Your task to perform on an android device: Go to calendar. Show me events next week Image 0: 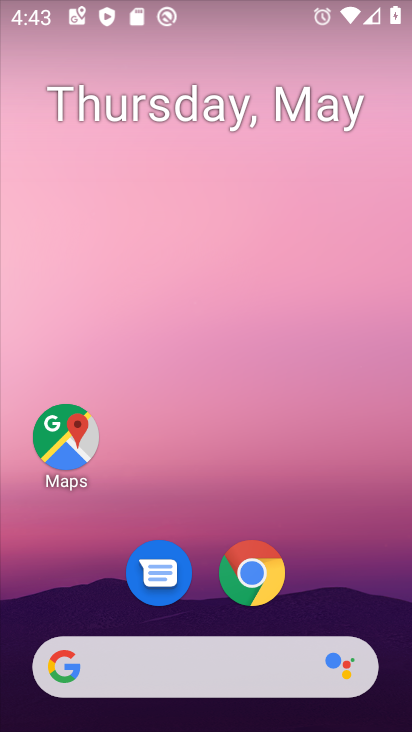
Step 0: drag from (235, 144) to (227, 85)
Your task to perform on an android device: Go to calendar. Show me events next week Image 1: 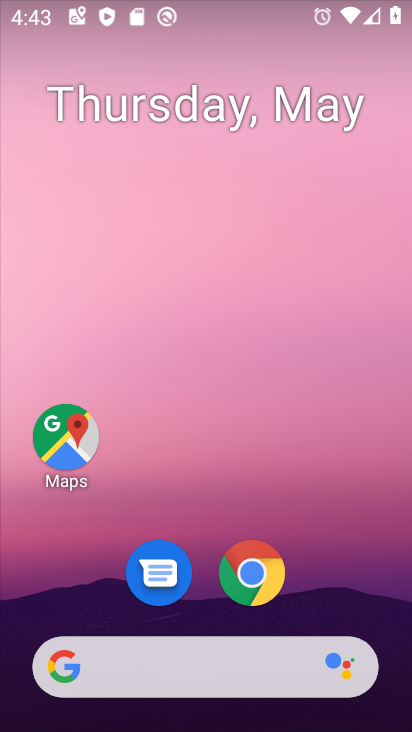
Step 1: drag from (306, 606) to (254, 21)
Your task to perform on an android device: Go to calendar. Show me events next week Image 2: 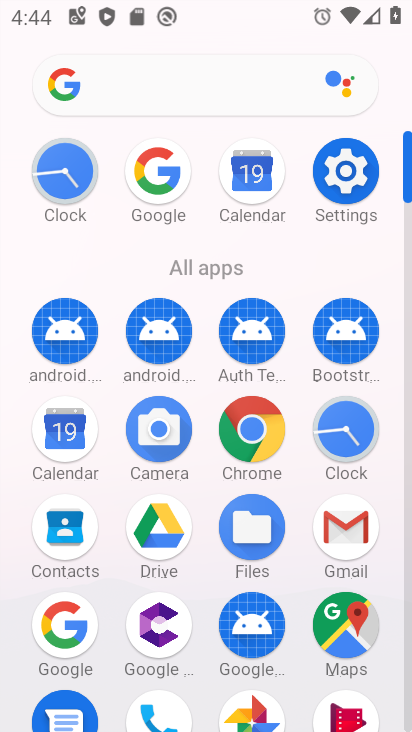
Step 2: click (256, 201)
Your task to perform on an android device: Go to calendar. Show me events next week Image 3: 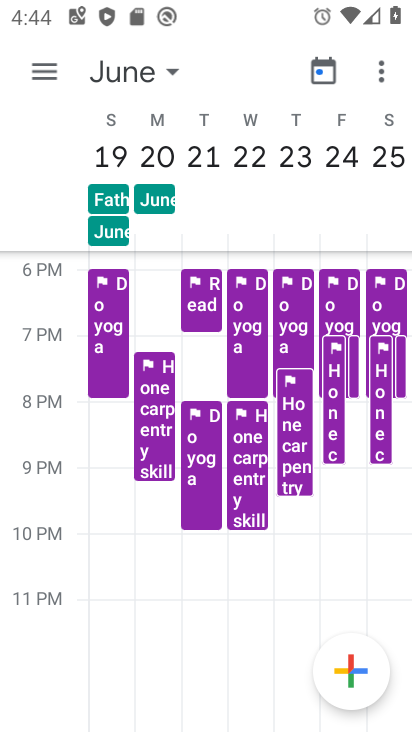
Step 3: click (135, 74)
Your task to perform on an android device: Go to calendar. Show me events next week Image 4: 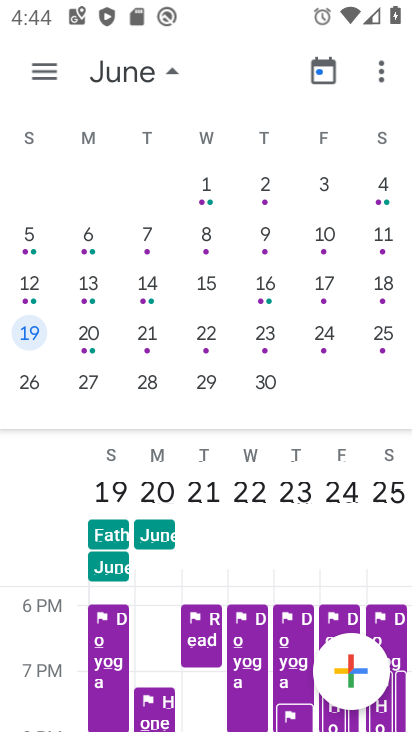
Step 4: drag from (262, 283) to (365, 288)
Your task to perform on an android device: Go to calendar. Show me events next week Image 5: 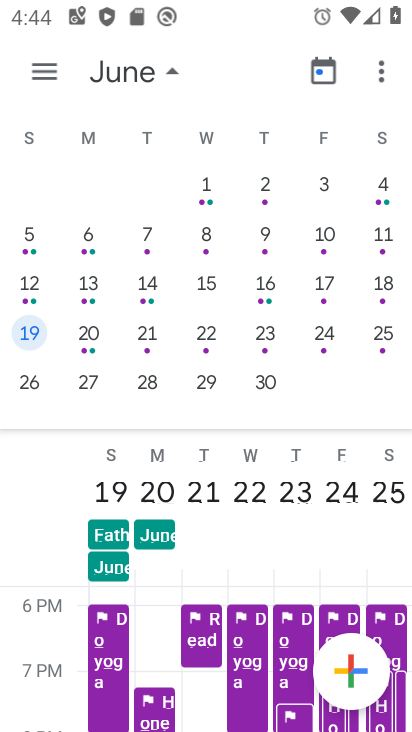
Step 5: drag from (300, 286) to (388, 286)
Your task to perform on an android device: Go to calendar. Show me events next week Image 6: 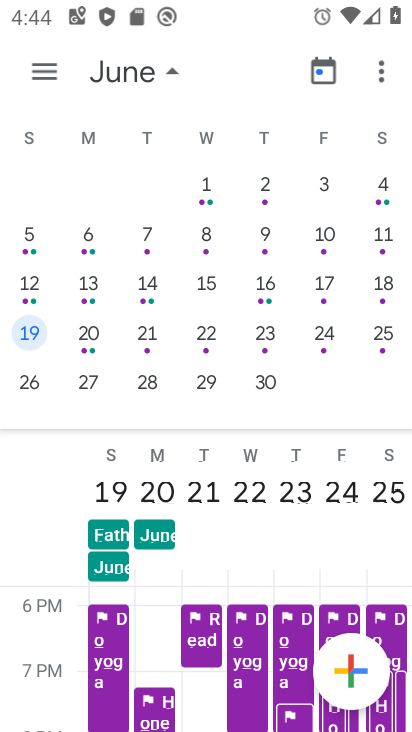
Step 6: click (401, 278)
Your task to perform on an android device: Go to calendar. Show me events next week Image 7: 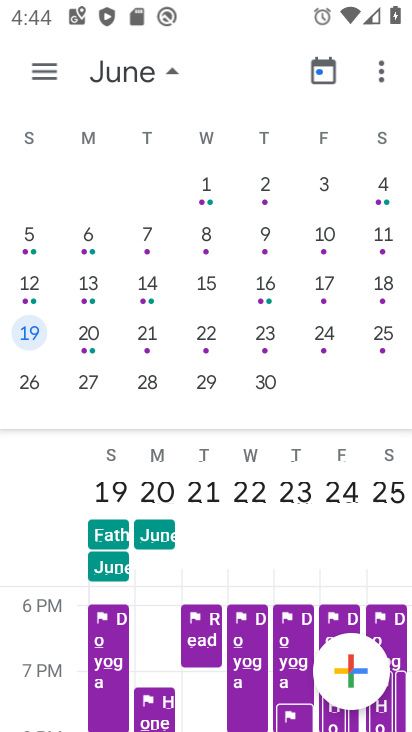
Step 7: drag from (309, 300) to (409, 295)
Your task to perform on an android device: Go to calendar. Show me events next week Image 8: 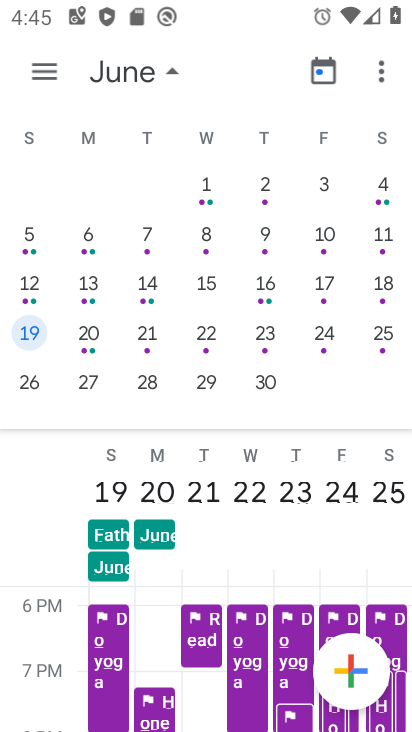
Step 8: drag from (80, 244) to (350, 296)
Your task to perform on an android device: Go to calendar. Show me events next week Image 9: 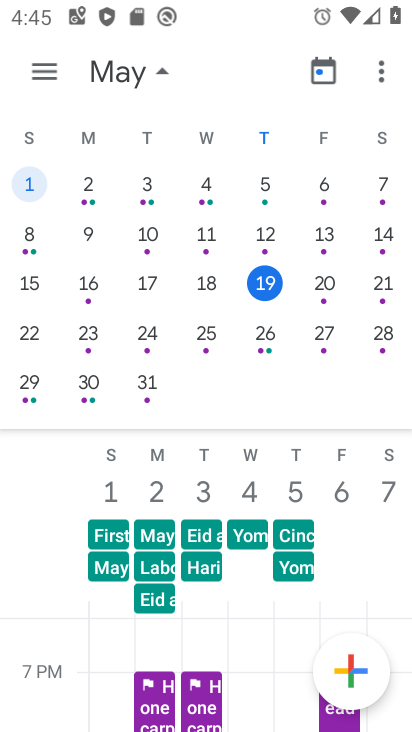
Step 9: click (33, 340)
Your task to perform on an android device: Go to calendar. Show me events next week Image 10: 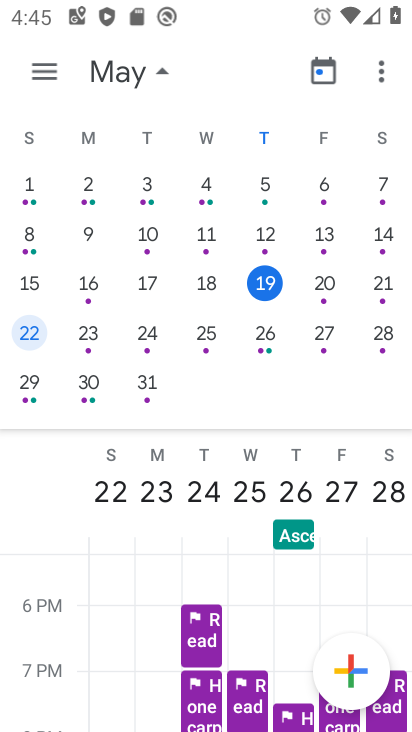
Step 10: drag from (177, 360) to (219, 175)
Your task to perform on an android device: Go to calendar. Show me events next week Image 11: 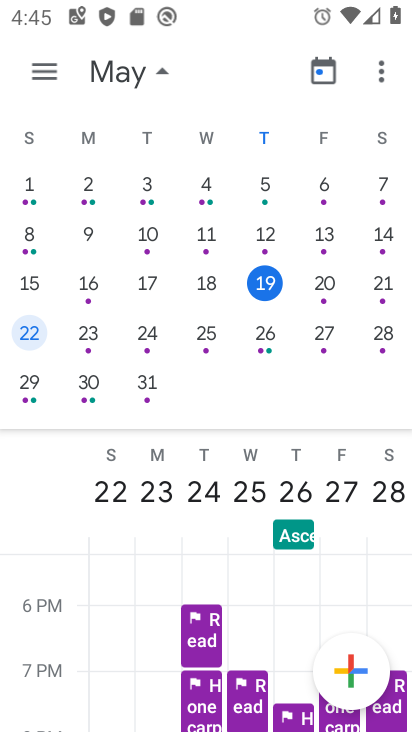
Step 11: drag from (311, 246) to (327, 170)
Your task to perform on an android device: Go to calendar. Show me events next week Image 12: 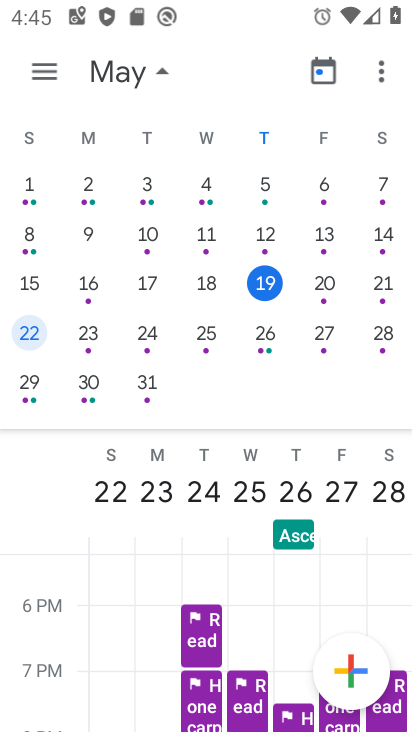
Step 12: drag from (229, 288) to (240, 67)
Your task to perform on an android device: Go to calendar. Show me events next week Image 13: 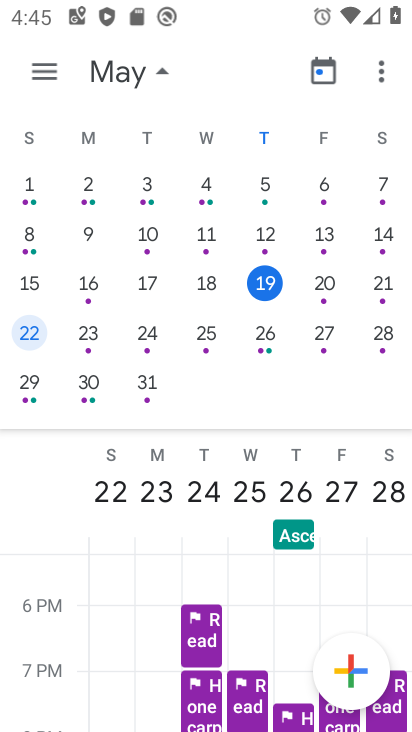
Step 13: click (249, 131)
Your task to perform on an android device: Go to calendar. Show me events next week Image 14: 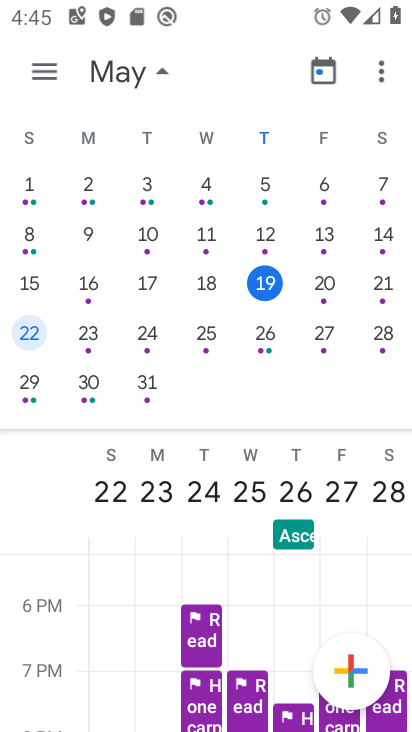
Step 14: drag from (153, 580) to (199, 195)
Your task to perform on an android device: Go to calendar. Show me events next week Image 15: 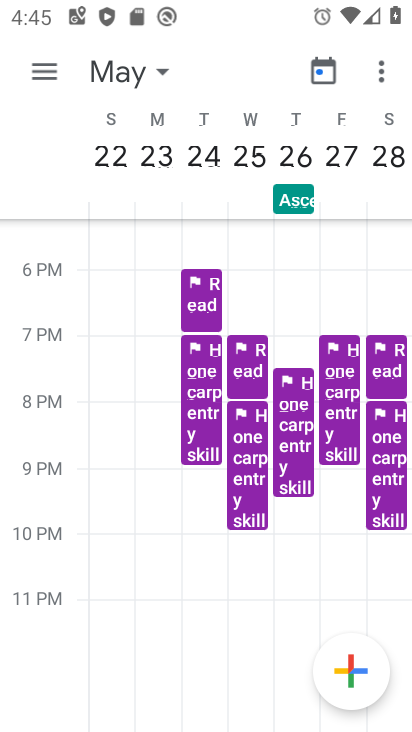
Step 15: click (260, 281)
Your task to perform on an android device: Go to calendar. Show me events next week Image 16: 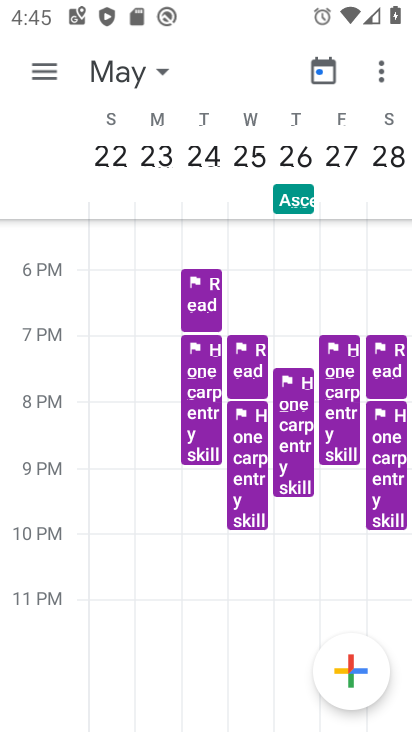
Step 16: click (304, 624)
Your task to perform on an android device: Go to calendar. Show me events next week Image 17: 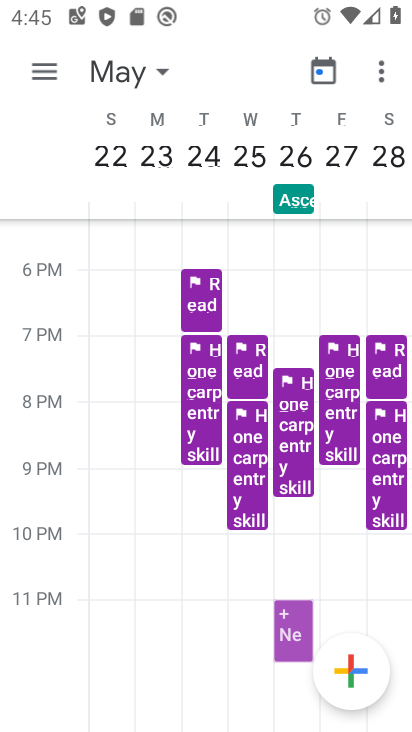
Step 17: task complete